Your task to perform on an android device: Open Chrome and go to the settings page Image 0: 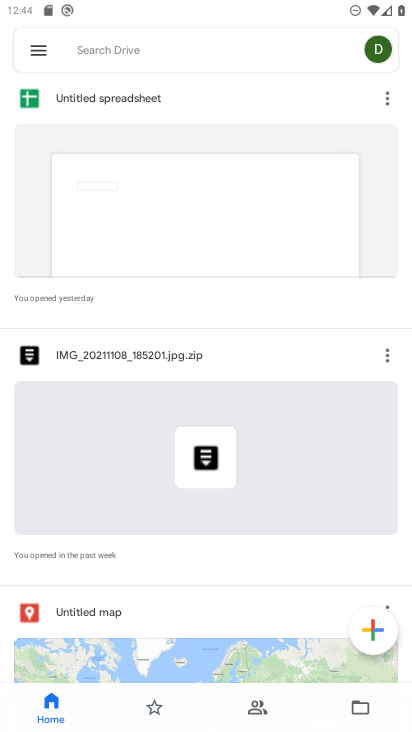
Step 0: drag from (166, 611) to (227, 132)
Your task to perform on an android device: Open Chrome and go to the settings page Image 1: 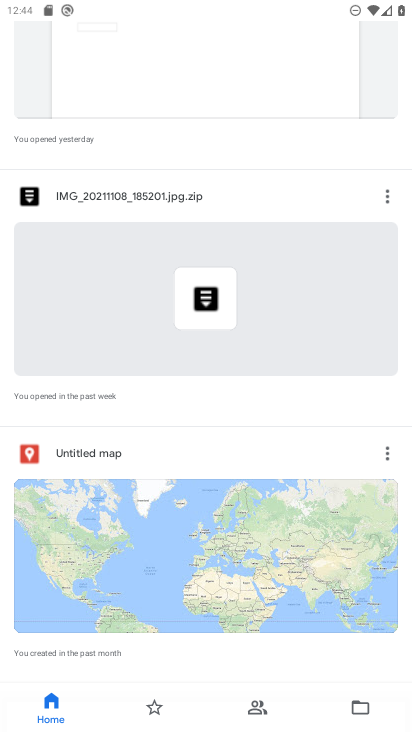
Step 1: press home button
Your task to perform on an android device: Open Chrome and go to the settings page Image 2: 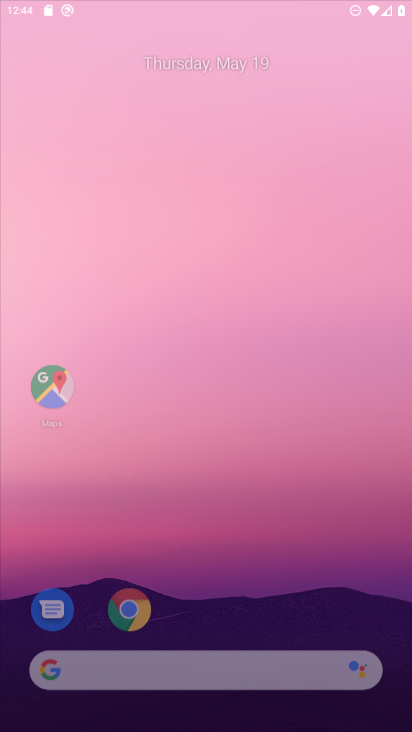
Step 2: drag from (139, 542) to (198, 13)
Your task to perform on an android device: Open Chrome and go to the settings page Image 3: 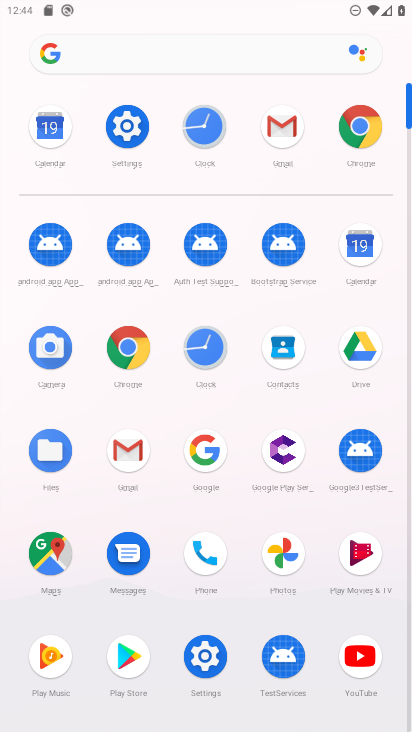
Step 3: click (221, 661)
Your task to perform on an android device: Open Chrome and go to the settings page Image 4: 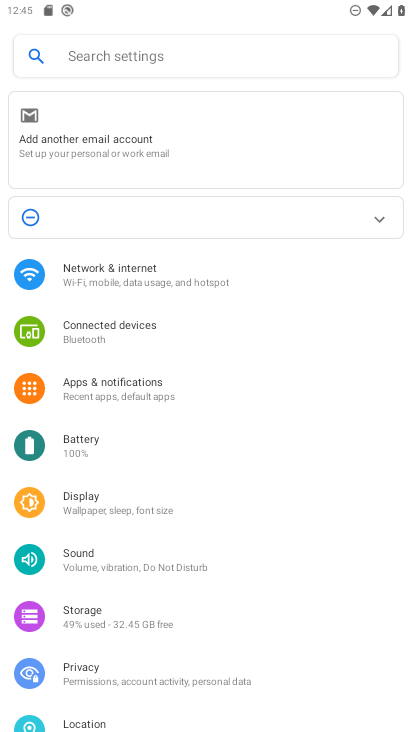
Step 4: press home button
Your task to perform on an android device: Open Chrome and go to the settings page Image 5: 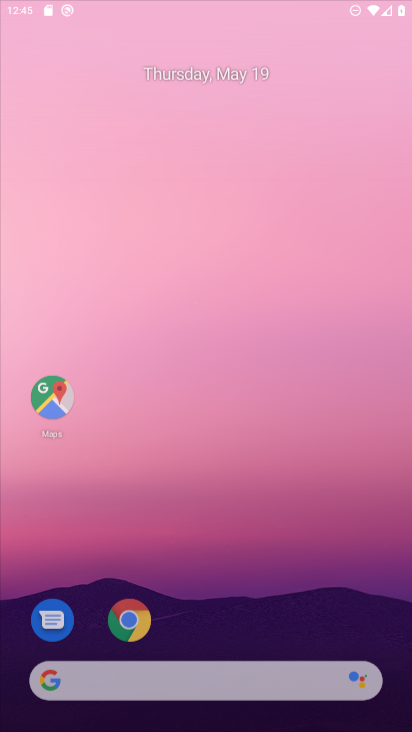
Step 5: drag from (281, 495) to (360, 15)
Your task to perform on an android device: Open Chrome and go to the settings page Image 6: 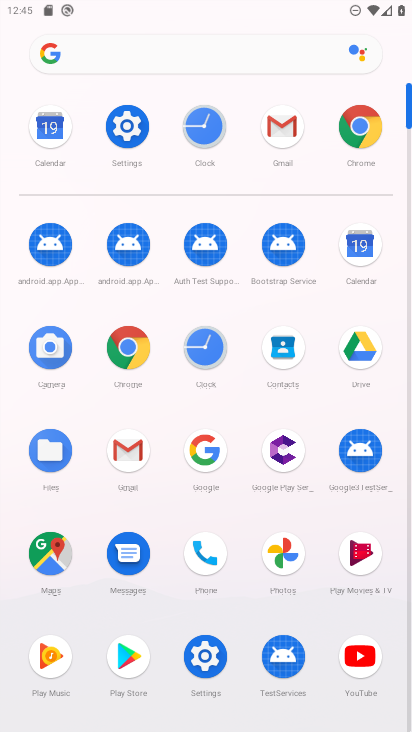
Step 6: click (126, 351)
Your task to perform on an android device: Open Chrome and go to the settings page Image 7: 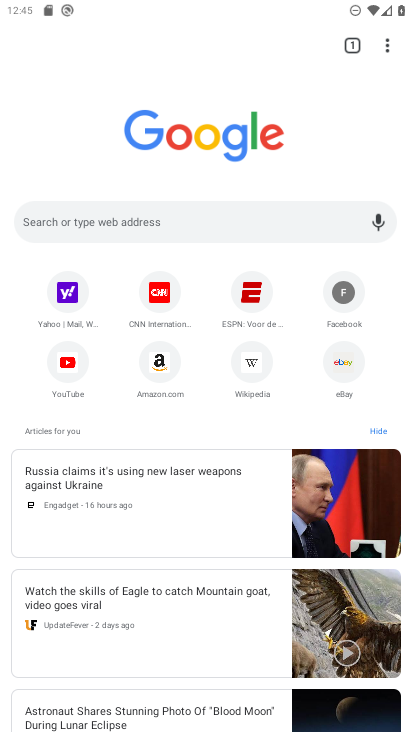
Step 7: click (393, 34)
Your task to perform on an android device: Open Chrome and go to the settings page Image 8: 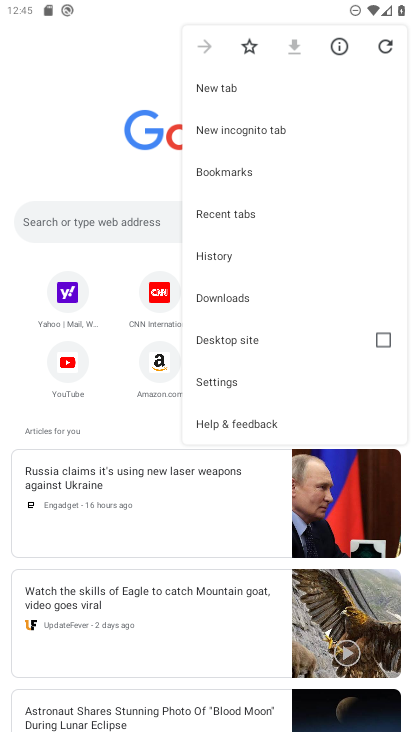
Step 8: click (217, 382)
Your task to perform on an android device: Open Chrome and go to the settings page Image 9: 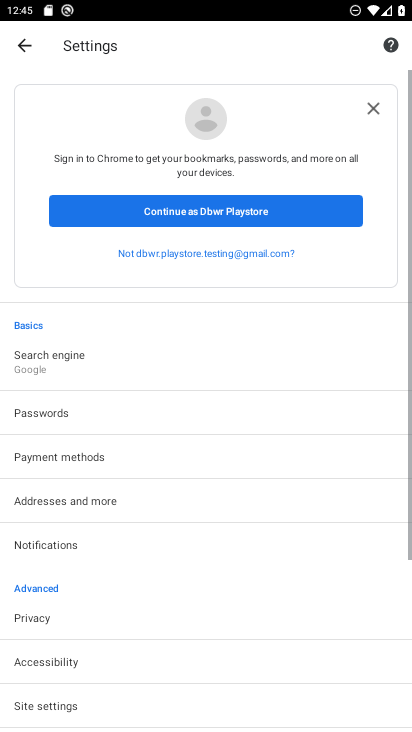
Step 9: task complete